Your task to perform on an android device: Open internet settings Image 0: 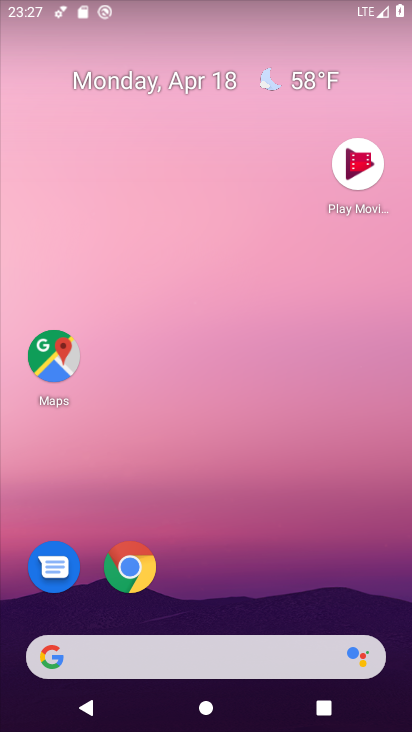
Step 0: drag from (184, 613) to (243, 143)
Your task to perform on an android device: Open internet settings Image 1: 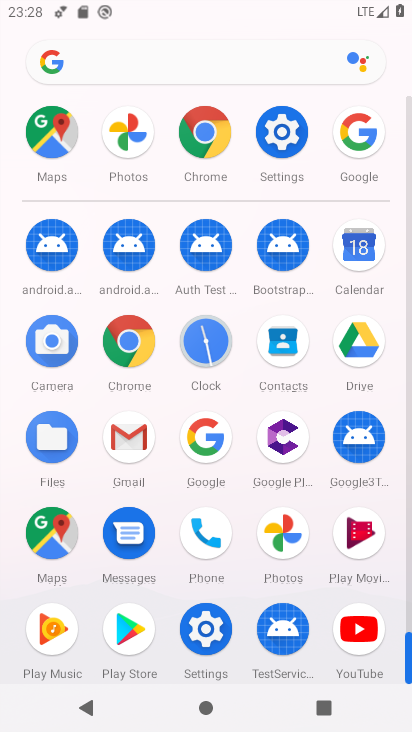
Step 1: click (198, 621)
Your task to perform on an android device: Open internet settings Image 2: 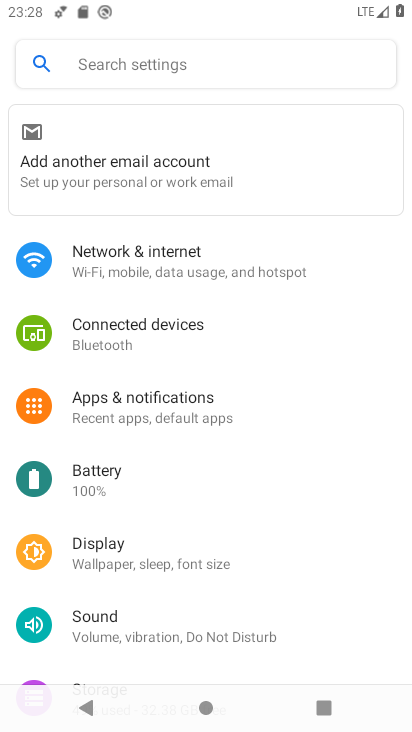
Step 2: click (184, 250)
Your task to perform on an android device: Open internet settings Image 3: 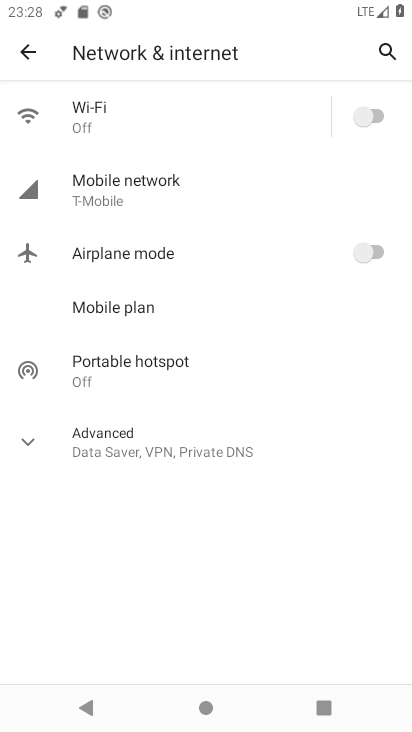
Step 3: task complete